Your task to perform on an android device: Search for Mexican restaurants on Maps Image 0: 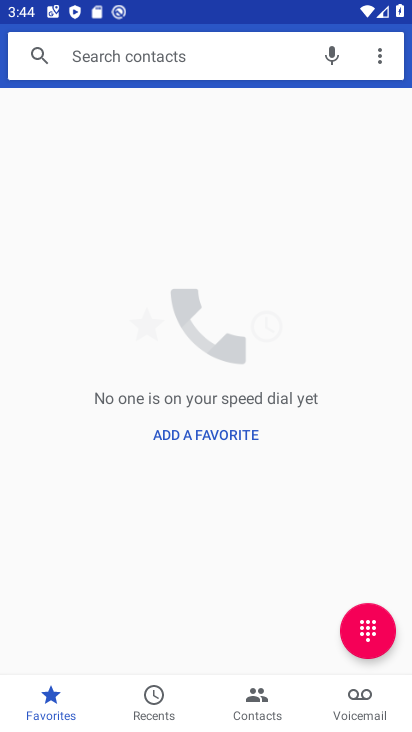
Step 0: click (134, 611)
Your task to perform on an android device: Search for Mexican restaurants on Maps Image 1: 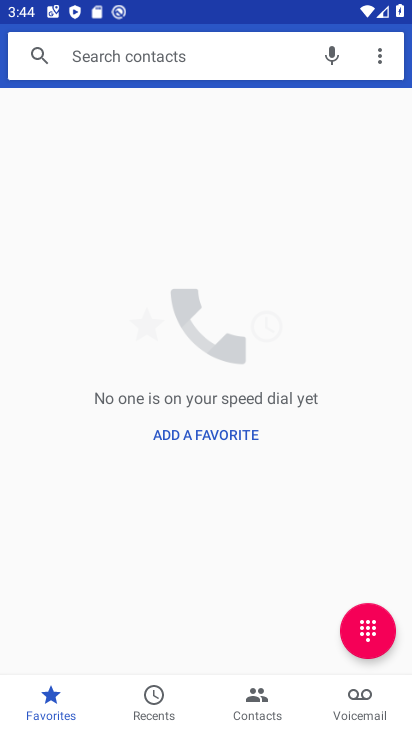
Step 1: press home button
Your task to perform on an android device: Search for Mexican restaurants on Maps Image 2: 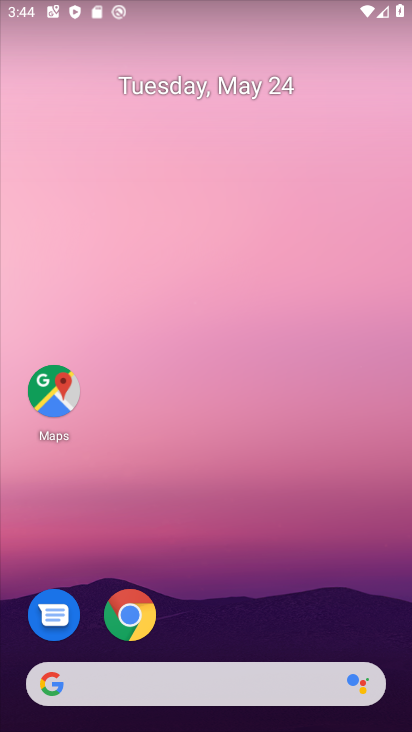
Step 2: drag from (215, 719) to (214, 193)
Your task to perform on an android device: Search for Mexican restaurants on Maps Image 3: 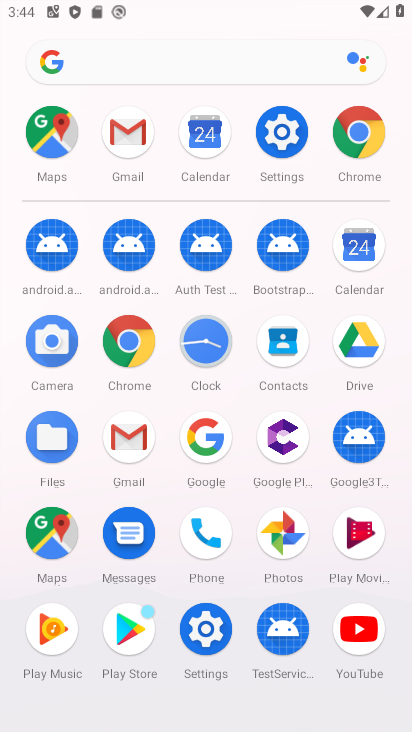
Step 3: click (44, 532)
Your task to perform on an android device: Search for Mexican restaurants on Maps Image 4: 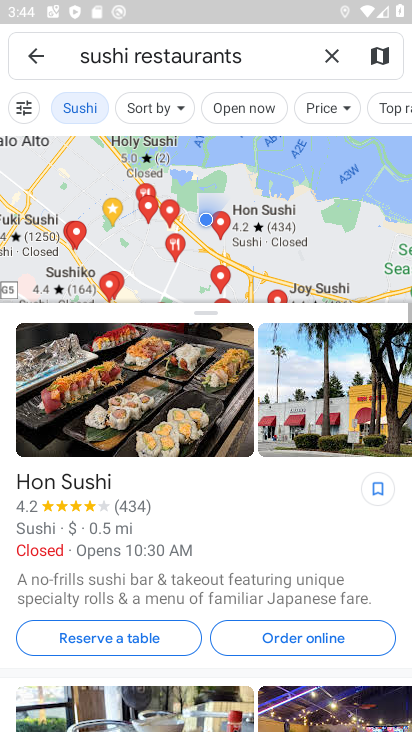
Step 4: click (328, 50)
Your task to perform on an android device: Search for Mexican restaurants on Maps Image 5: 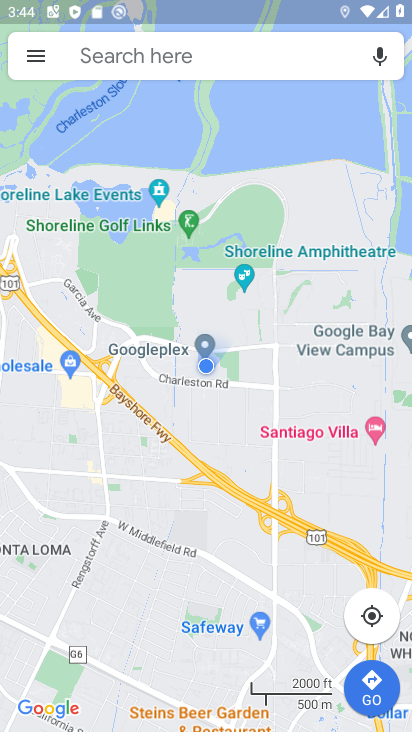
Step 5: click (189, 56)
Your task to perform on an android device: Search for Mexican restaurants on Maps Image 6: 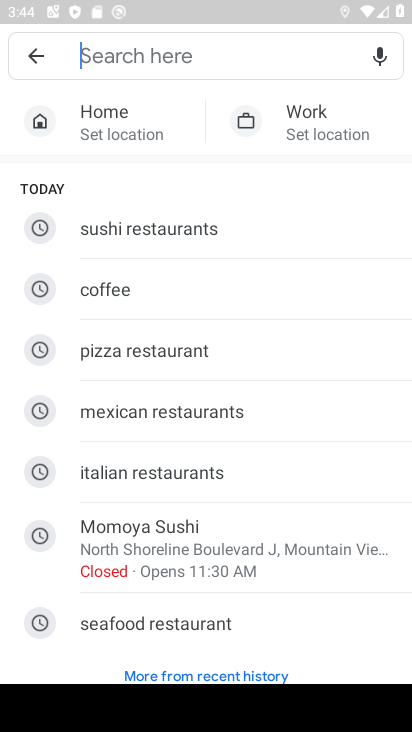
Step 6: type "Mexican restaurants"
Your task to perform on an android device: Search for Mexican restaurants on Maps Image 7: 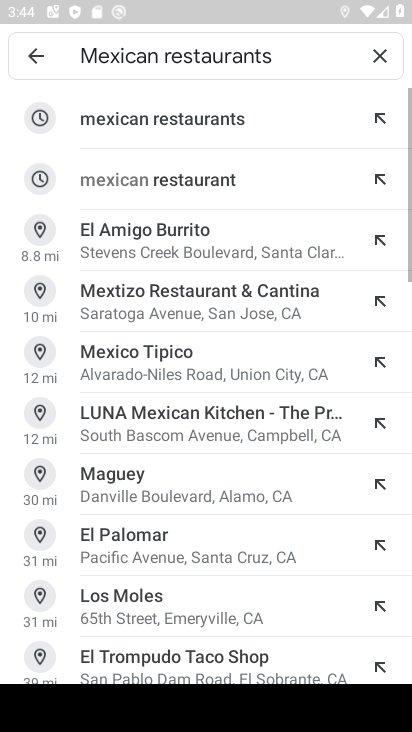
Step 7: click (163, 119)
Your task to perform on an android device: Search for Mexican restaurants on Maps Image 8: 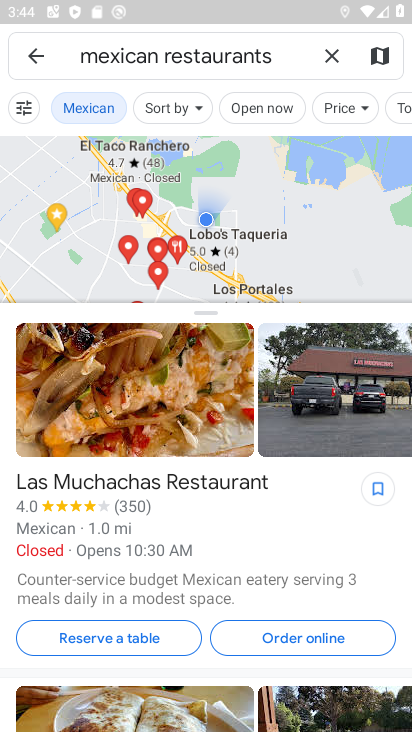
Step 8: task complete